Your task to perform on an android device: Open Amazon Image 0: 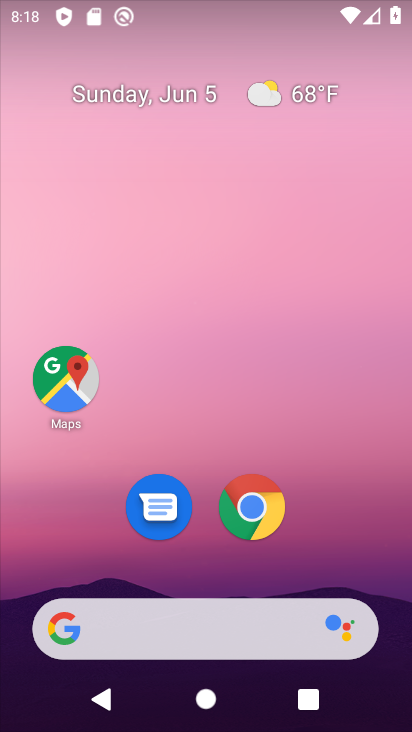
Step 0: click (248, 504)
Your task to perform on an android device: Open Amazon Image 1: 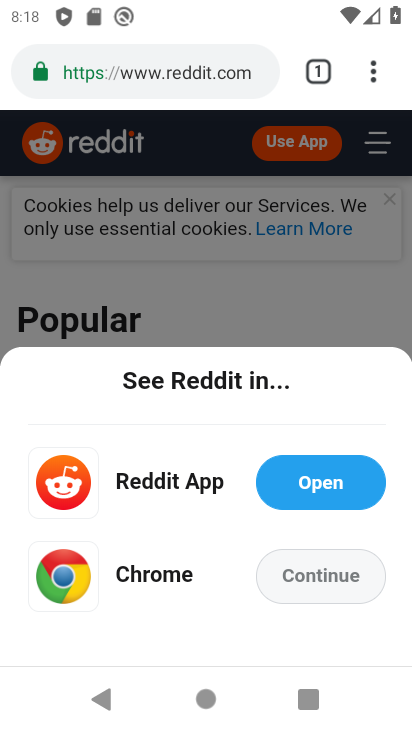
Step 1: click (376, 82)
Your task to perform on an android device: Open Amazon Image 2: 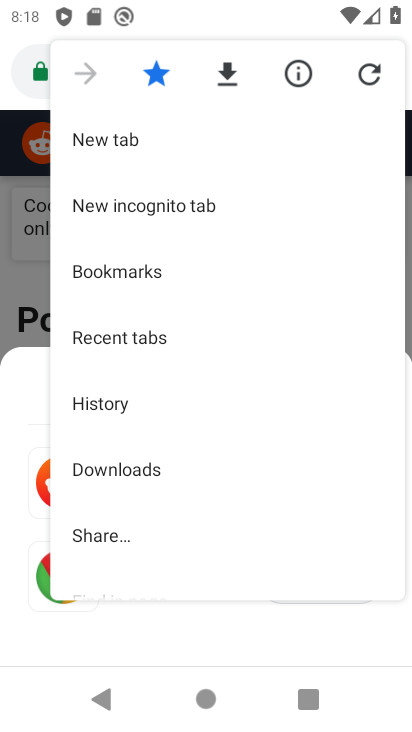
Step 2: click (89, 132)
Your task to perform on an android device: Open Amazon Image 3: 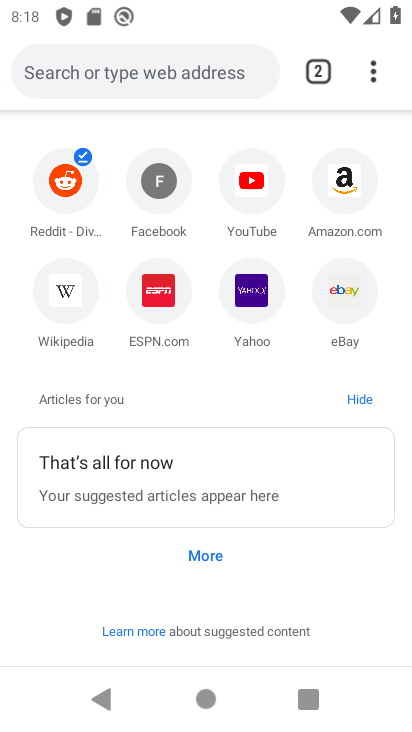
Step 3: click (346, 188)
Your task to perform on an android device: Open Amazon Image 4: 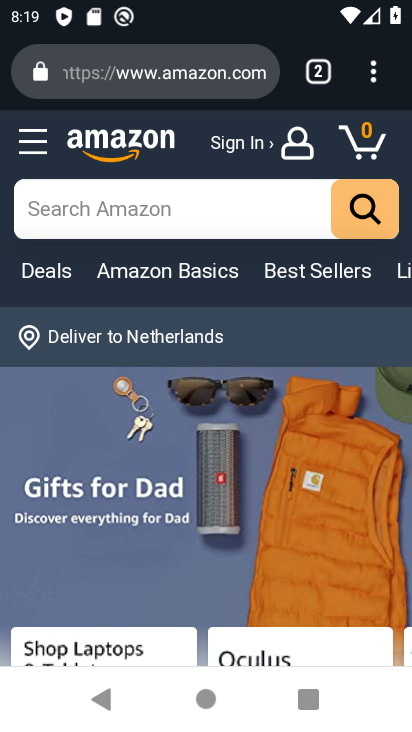
Step 4: task complete